Your task to perform on an android device: change alarm snooze length Image 0: 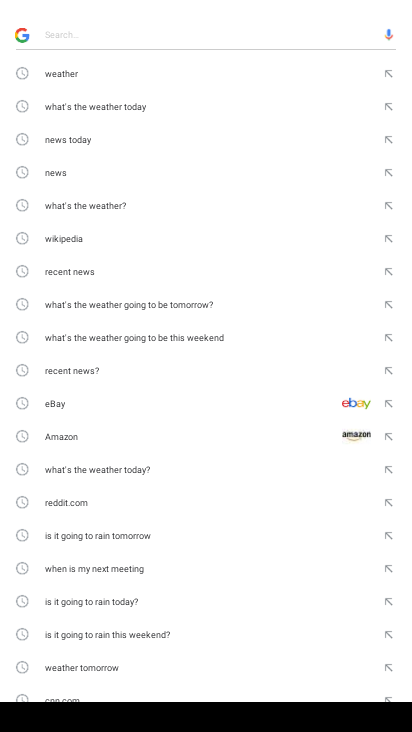
Step 0: press home button
Your task to perform on an android device: change alarm snooze length Image 1: 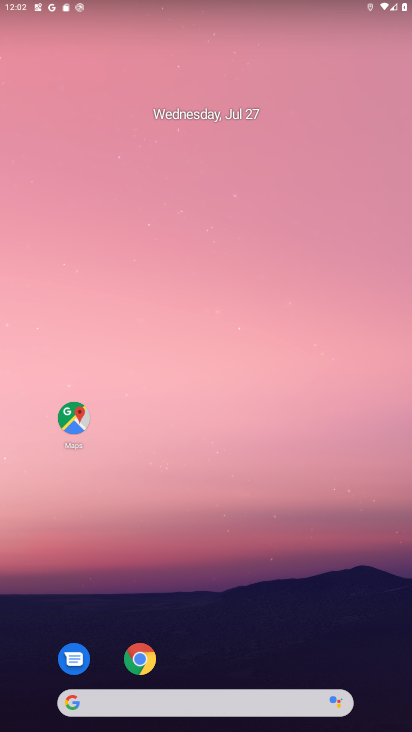
Step 1: drag from (290, 707) to (160, 31)
Your task to perform on an android device: change alarm snooze length Image 2: 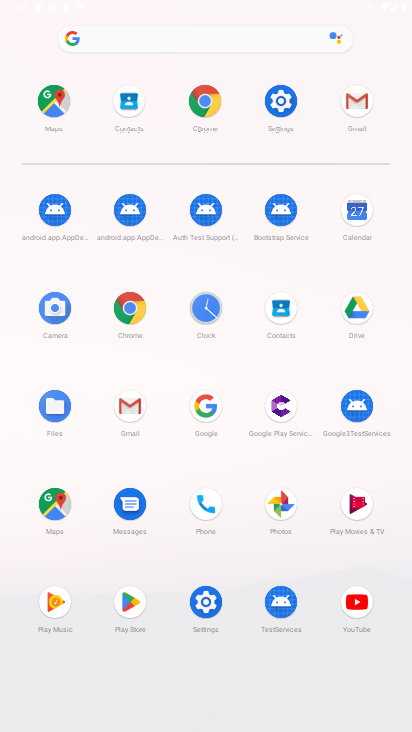
Step 2: click (207, 304)
Your task to perform on an android device: change alarm snooze length Image 3: 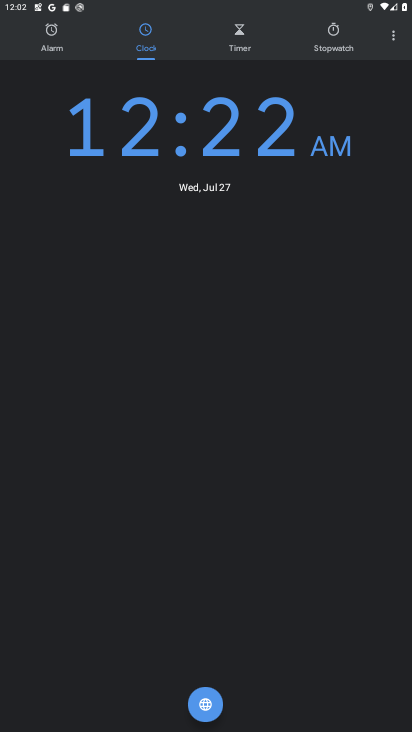
Step 3: click (389, 28)
Your task to perform on an android device: change alarm snooze length Image 4: 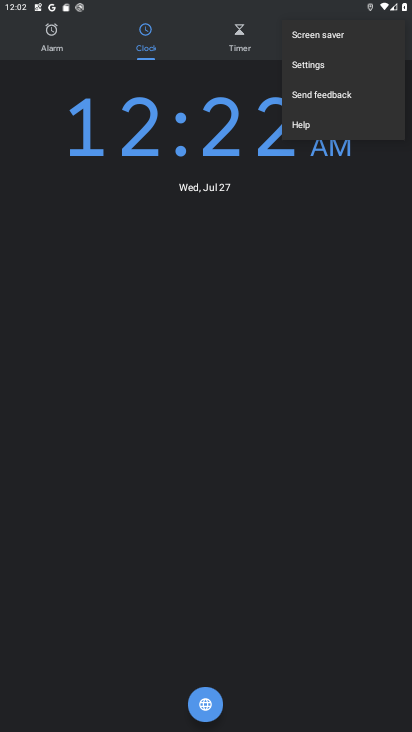
Step 4: click (309, 69)
Your task to perform on an android device: change alarm snooze length Image 5: 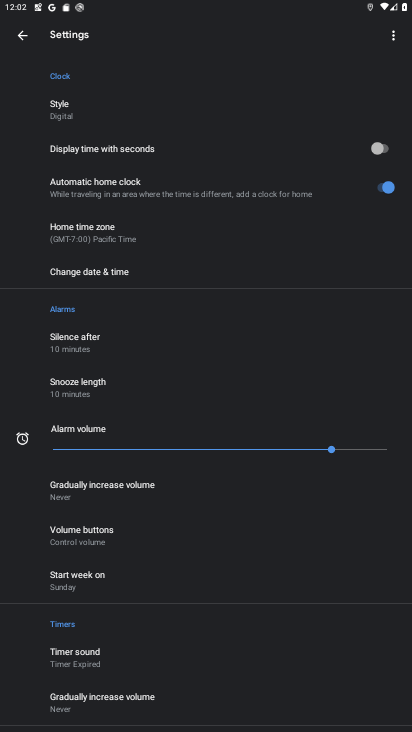
Step 5: click (118, 390)
Your task to perform on an android device: change alarm snooze length Image 6: 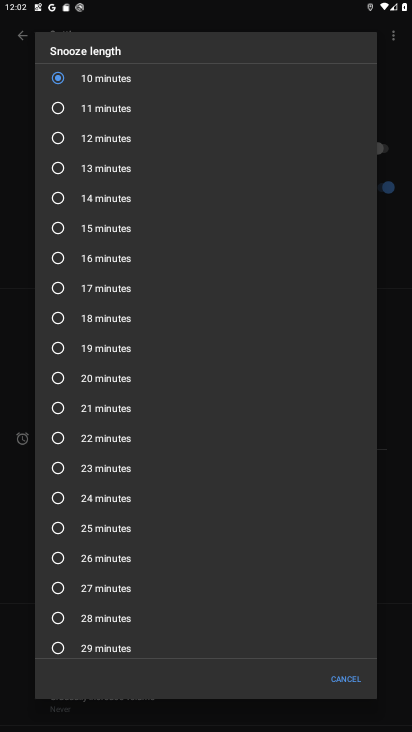
Step 6: click (59, 174)
Your task to perform on an android device: change alarm snooze length Image 7: 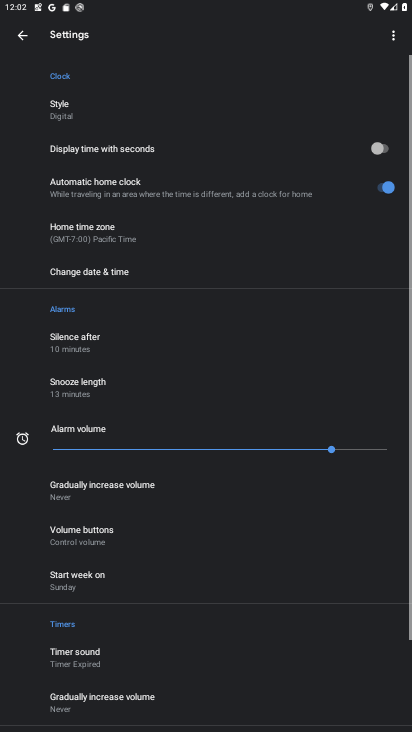
Step 7: task complete